Your task to perform on an android device: turn on data saver in the chrome app Image 0: 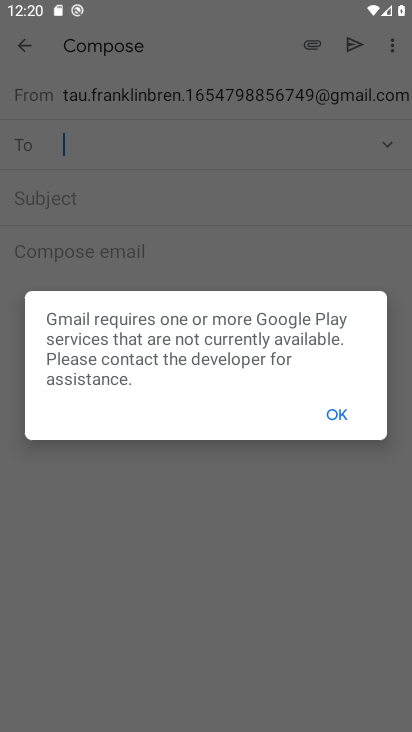
Step 0: press home button
Your task to perform on an android device: turn on data saver in the chrome app Image 1: 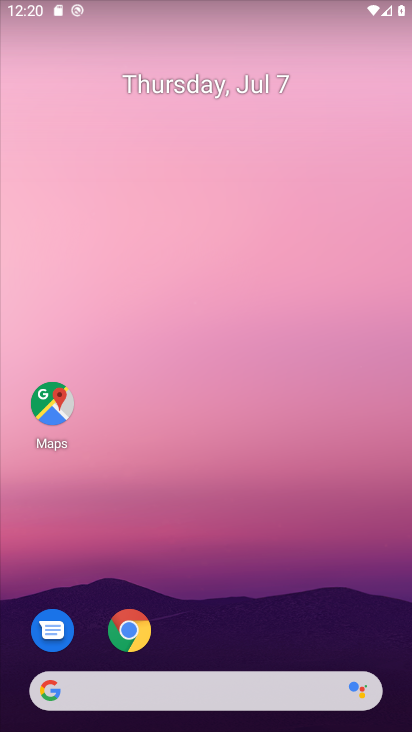
Step 1: drag from (252, 636) to (289, 242)
Your task to perform on an android device: turn on data saver in the chrome app Image 2: 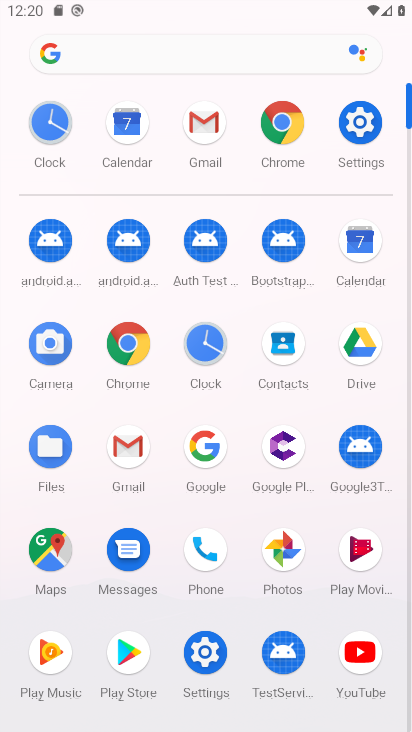
Step 2: click (275, 126)
Your task to perform on an android device: turn on data saver in the chrome app Image 3: 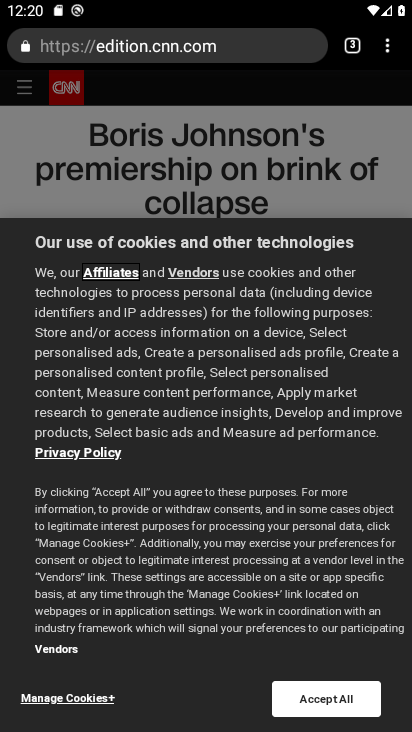
Step 3: click (400, 37)
Your task to perform on an android device: turn on data saver in the chrome app Image 4: 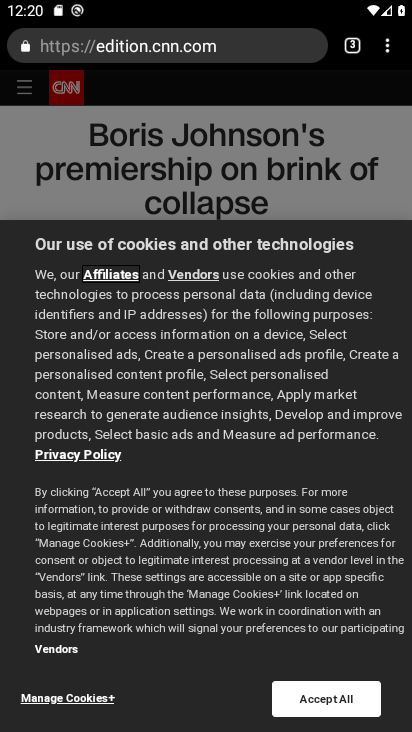
Step 4: click (394, 48)
Your task to perform on an android device: turn on data saver in the chrome app Image 5: 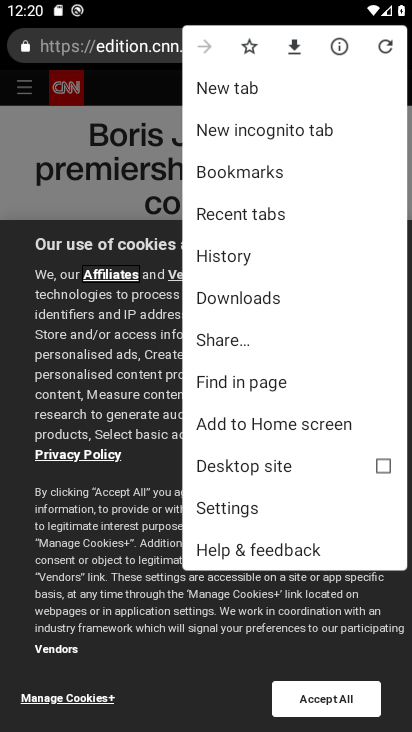
Step 5: click (252, 503)
Your task to perform on an android device: turn on data saver in the chrome app Image 6: 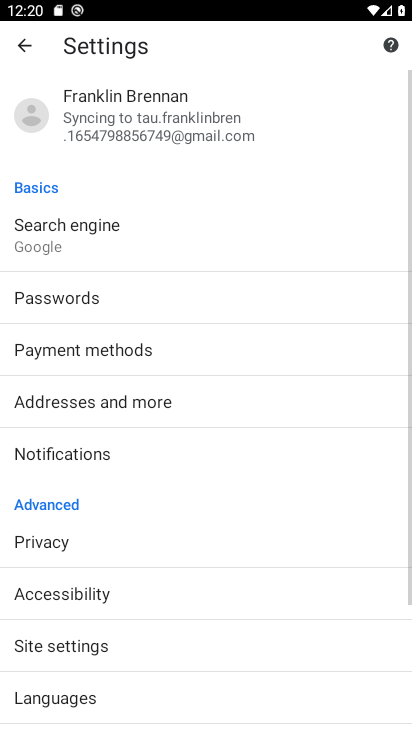
Step 6: drag from (169, 638) to (207, 316)
Your task to perform on an android device: turn on data saver in the chrome app Image 7: 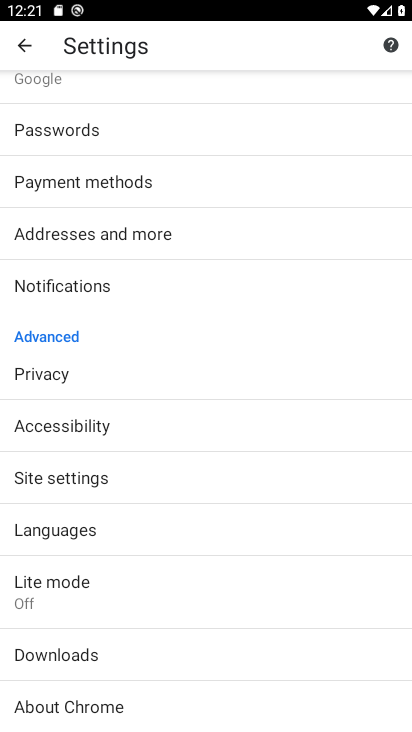
Step 7: click (90, 611)
Your task to perform on an android device: turn on data saver in the chrome app Image 8: 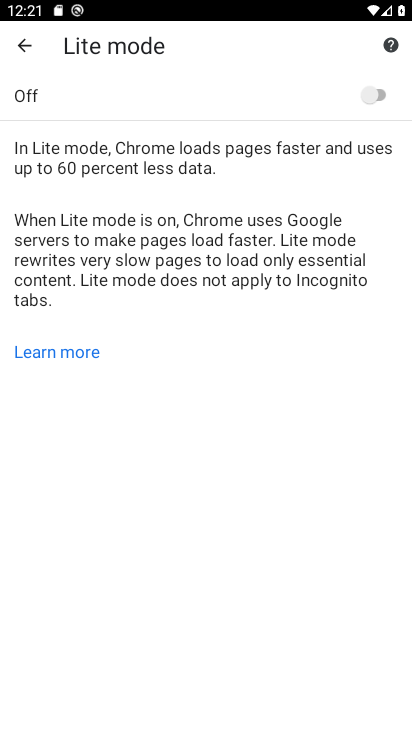
Step 8: click (381, 92)
Your task to perform on an android device: turn on data saver in the chrome app Image 9: 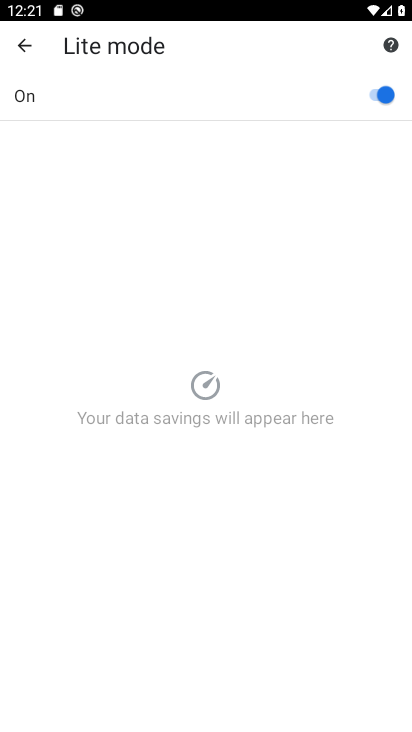
Step 9: task complete